Your task to perform on an android device: check storage Image 0: 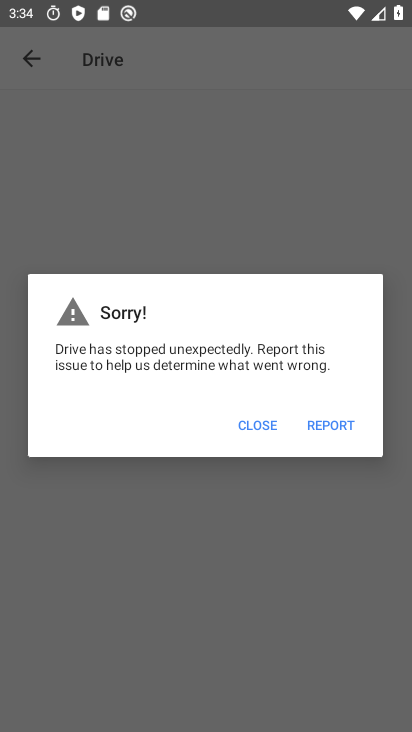
Step 0: press back button
Your task to perform on an android device: check storage Image 1: 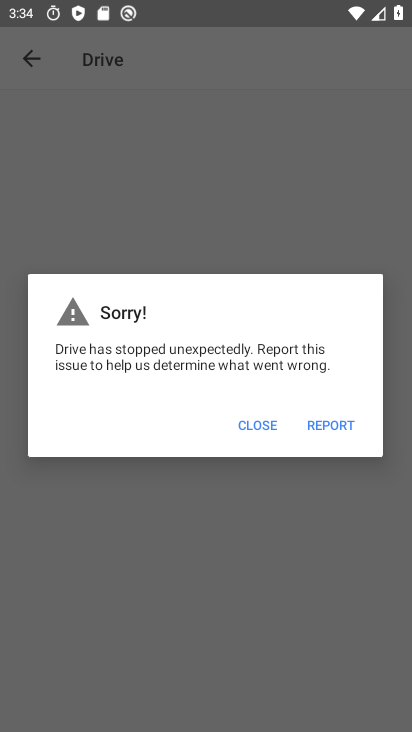
Step 1: press home button
Your task to perform on an android device: check storage Image 2: 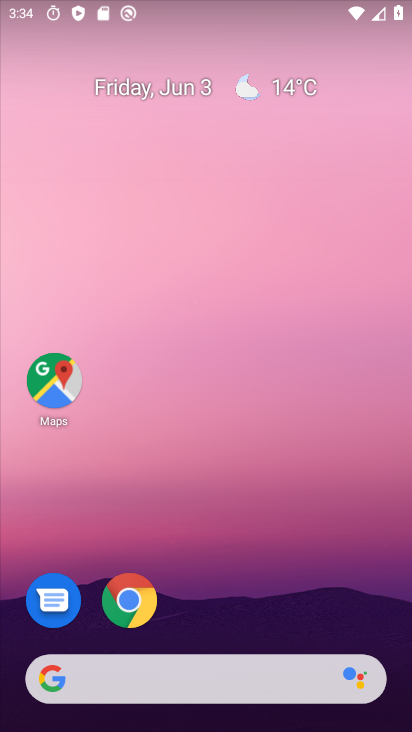
Step 2: drag from (245, 495) to (16, 75)
Your task to perform on an android device: check storage Image 3: 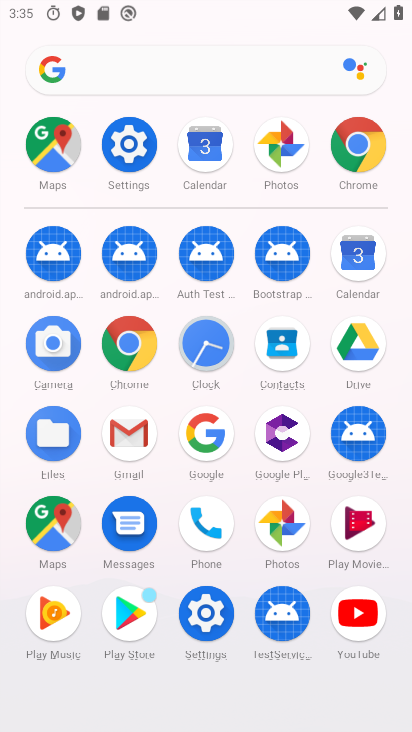
Step 3: click (128, 141)
Your task to perform on an android device: check storage Image 4: 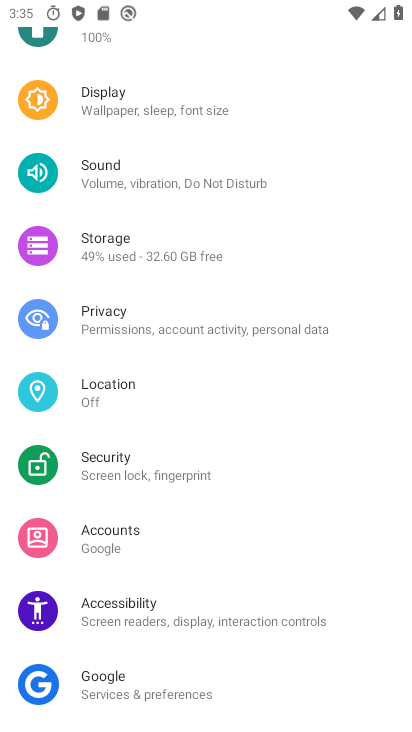
Step 4: drag from (189, 551) to (219, 58)
Your task to perform on an android device: check storage Image 5: 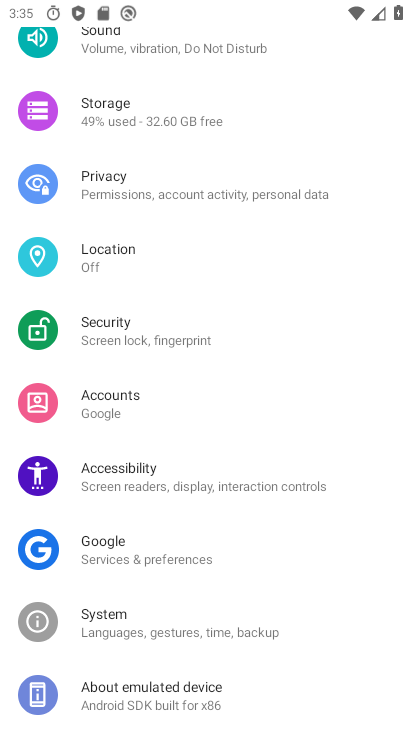
Step 5: click (191, 432)
Your task to perform on an android device: check storage Image 6: 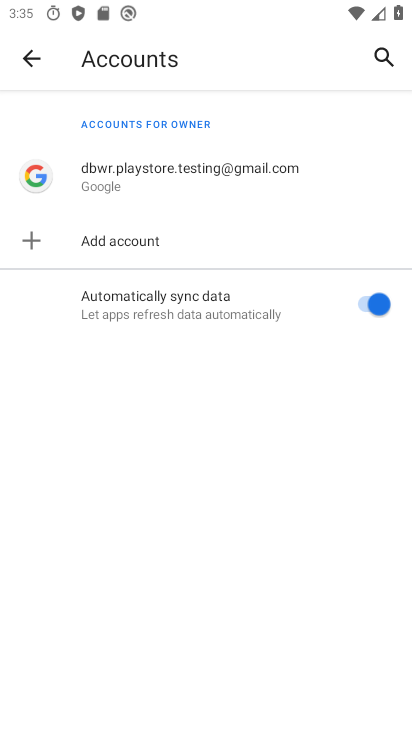
Step 6: click (34, 58)
Your task to perform on an android device: check storage Image 7: 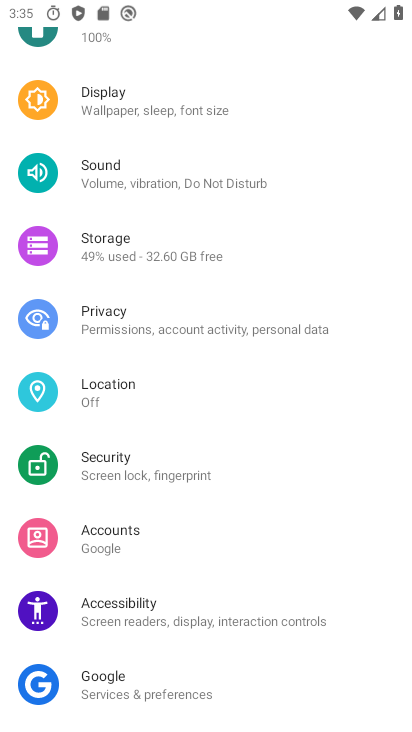
Step 7: click (143, 241)
Your task to perform on an android device: check storage Image 8: 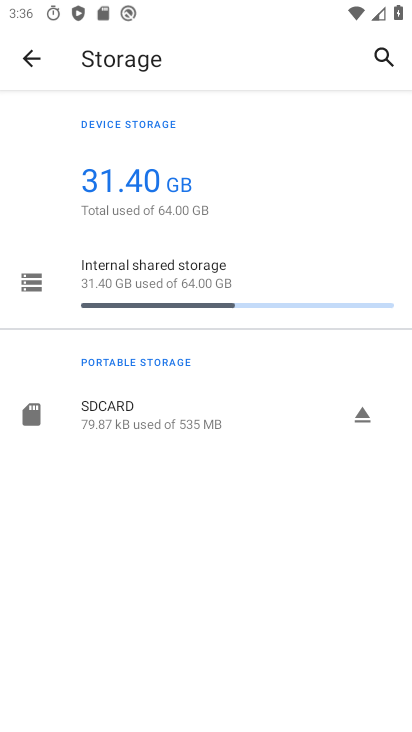
Step 8: task complete